Your task to perform on an android device: Find coffee shops on Maps Image 0: 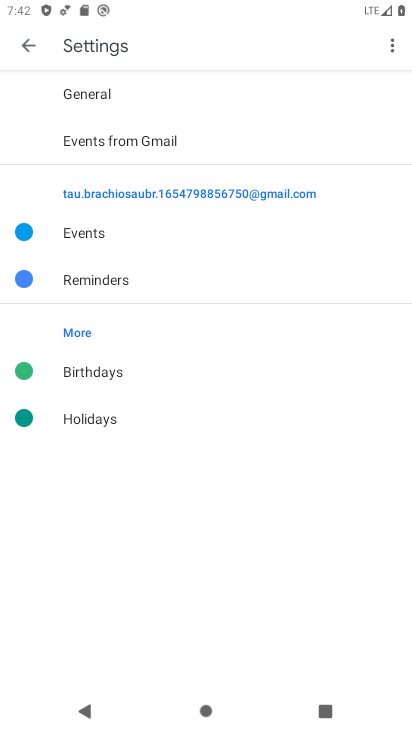
Step 0: press home button
Your task to perform on an android device: Find coffee shops on Maps Image 1: 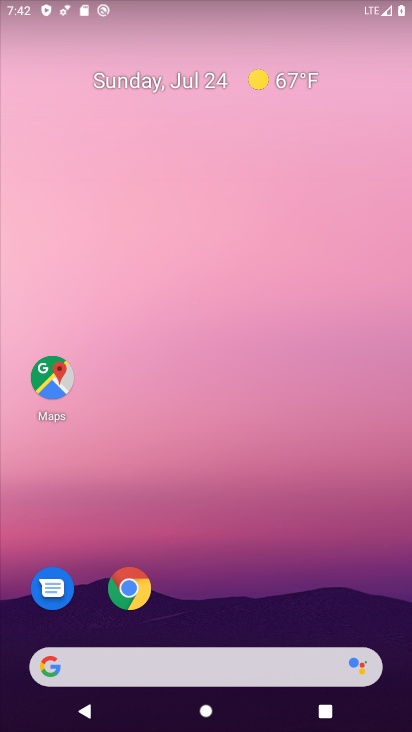
Step 1: click (54, 380)
Your task to perform on an android device: Find coffee shops on Maps Image 2: 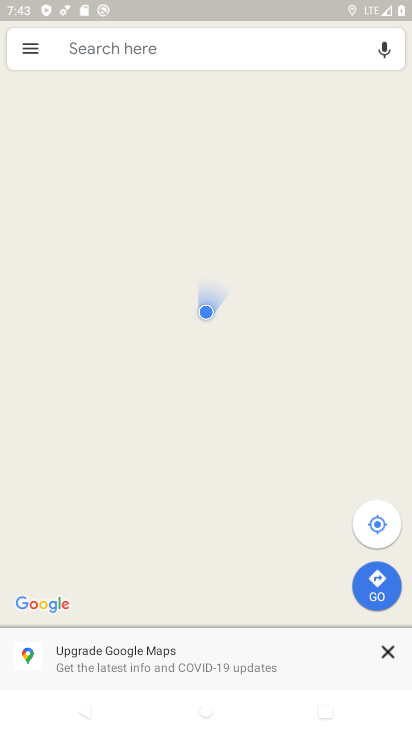
Step 2: click (245, 49)
Your task to perform on an android device: Find coffee shops on Maps Image 3: 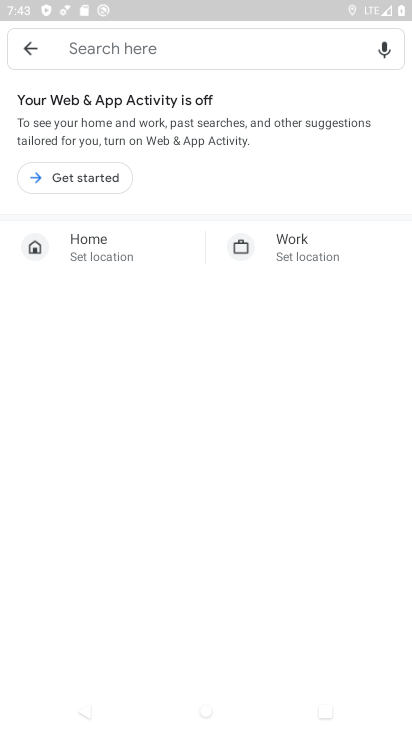
Step 3: click (176, 45)
Your task to perform on an android device: Find coffee shops on Maps Image 4: 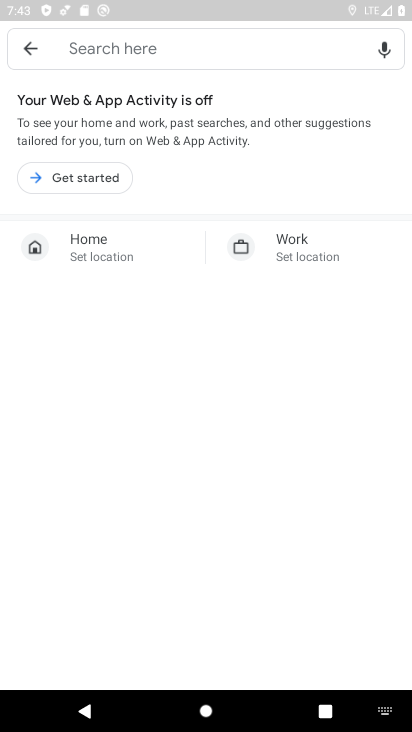
Step 4: type "coffee "
Your task to perform on an android device: Find coffee shops on Maps Image 5: 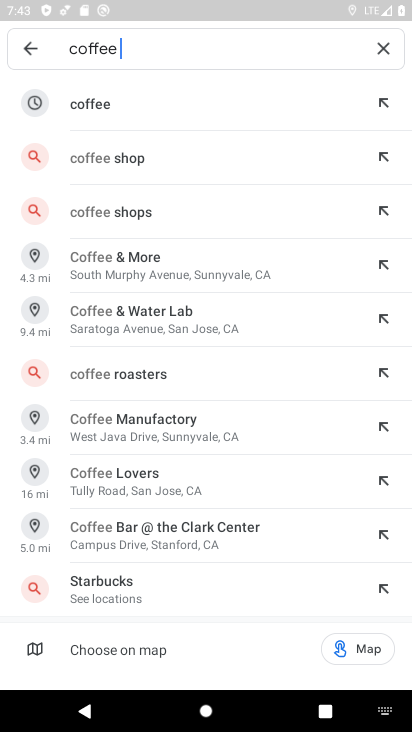
Step 5: click (136, 97)
Your task to perform on an android device: Find coffee shops on Maps Image 6: 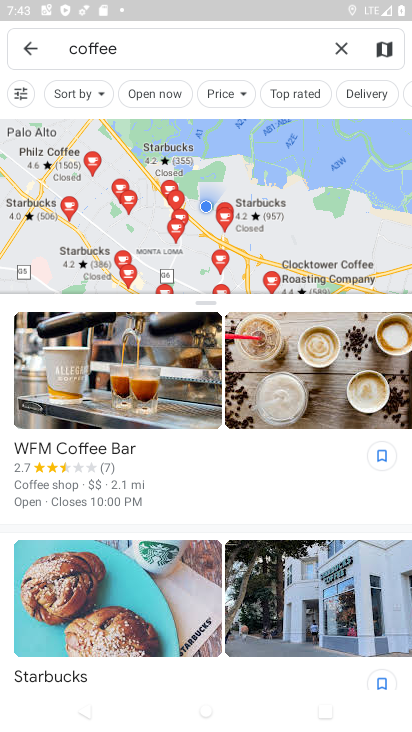
Step 6: task complete